Your task to perform on an android device: remove spam from my inbox in the gmail app Image 0: 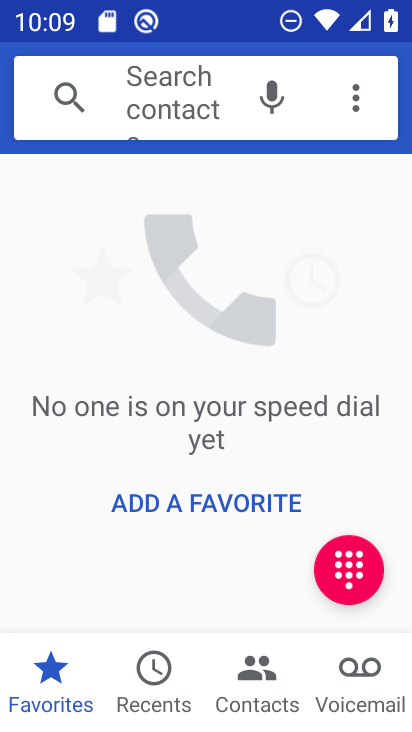
Step 0: press home button
Your task to perform on an android device: remove spam from my inbox in the gmail app Image 1: 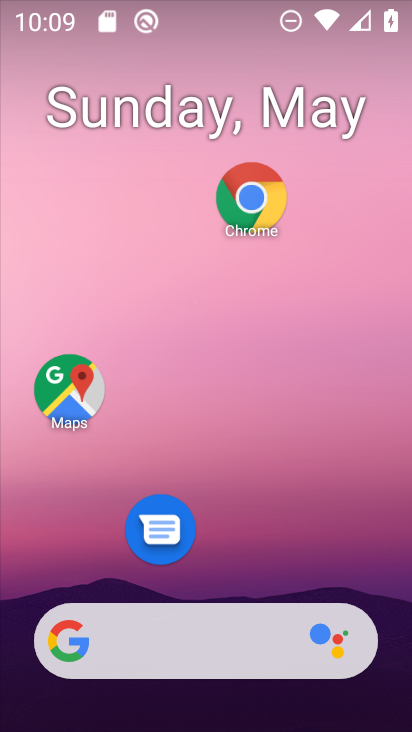
Step 1: drag from (256, 574) to (244, 74)
Your task to perform on an android device: remove spam from my inbox in the gmail app Image 2: 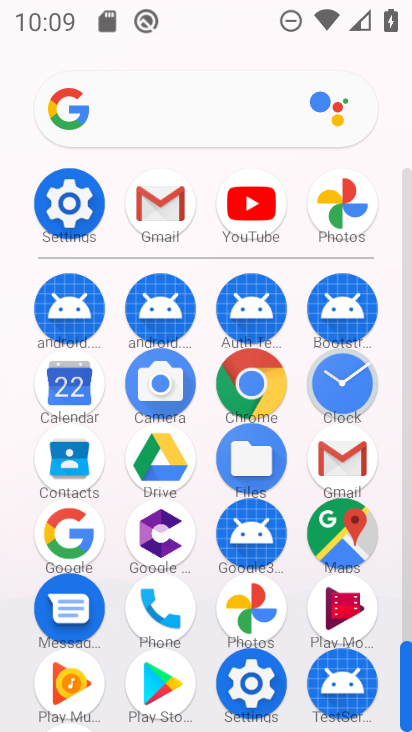
Step 2: click (158, 197)
Your task to perform on an android device: remove spam from my inbox in the gmail app Image 3: 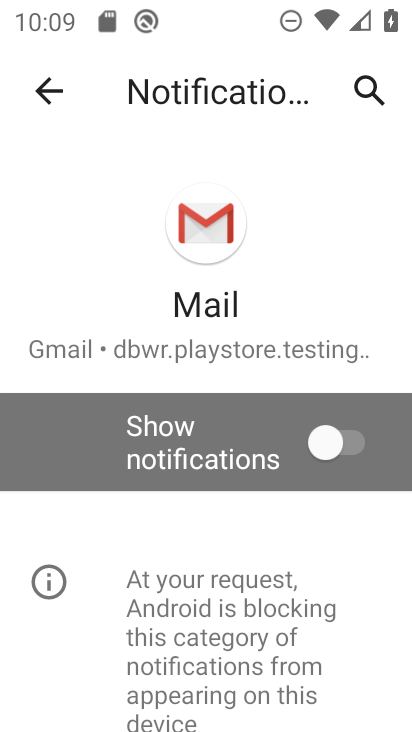
Step 3: click (37, 89)
Your task to perform on an android device: remove spam from my inbox in the gmail app Image 4: 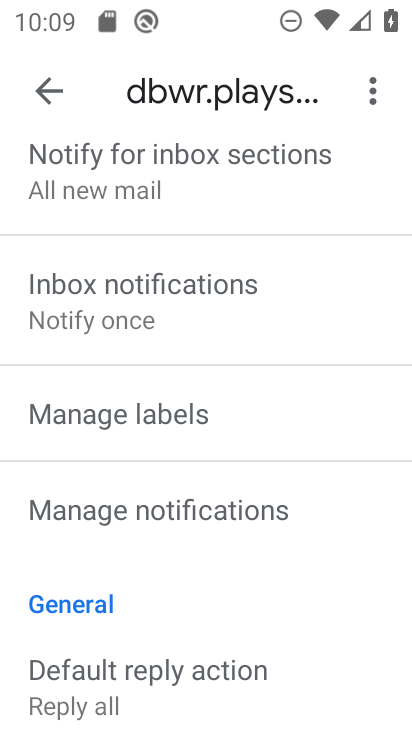
Step 4: click (49, 99)
Your task to perform on an android device: remove spam from my inbox in the gmail app Image 5: 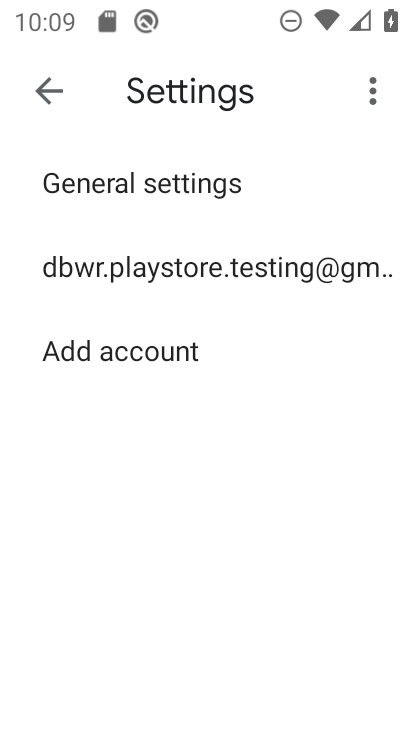
Step 5: click (50, 99)
Your task to perform on an android device: remove spam from my inbox in the gmail app Image 6: 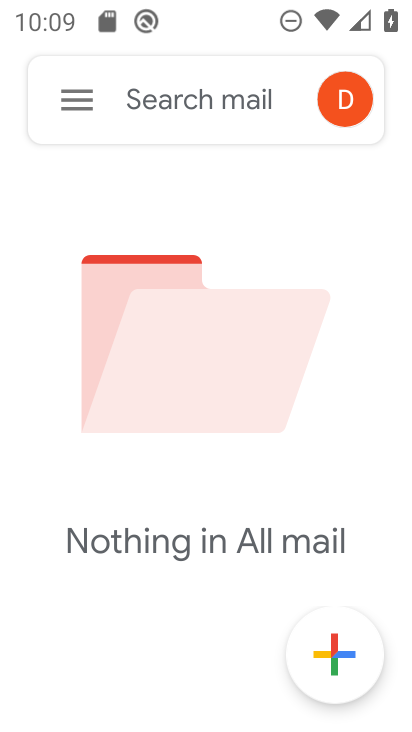
Step 6: click (69, 100)
Your task to perform on an android device: remove spam from my inbox in the gmail app Image 7: 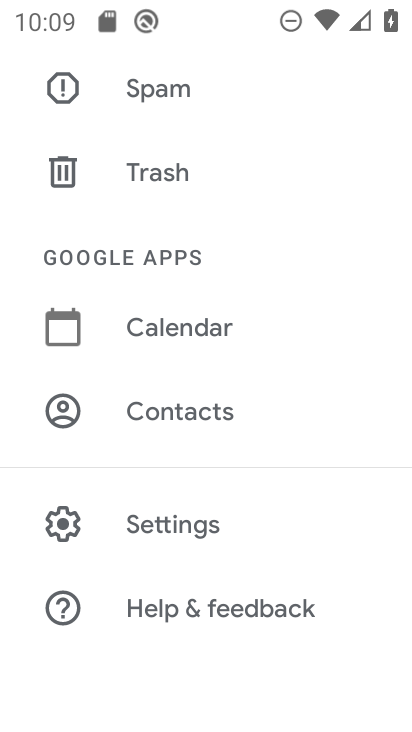
Step 7: click (184, 91)
Your task to perform on an android device: remove spam from my inbox in the gmail app Image 8: 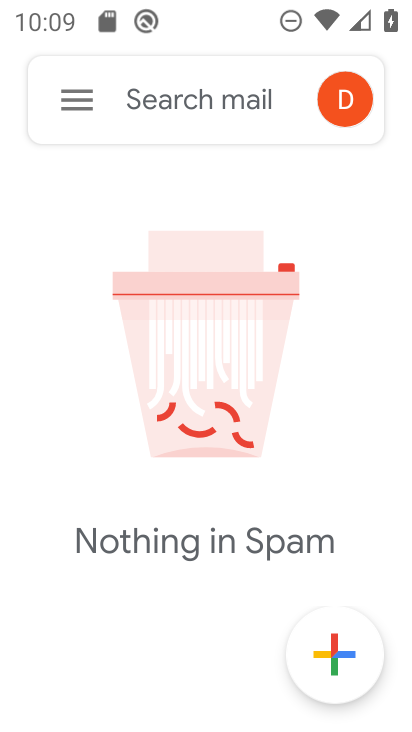
Step 8: task complete